Your task to perform on an android device: turn on location history Image 0: 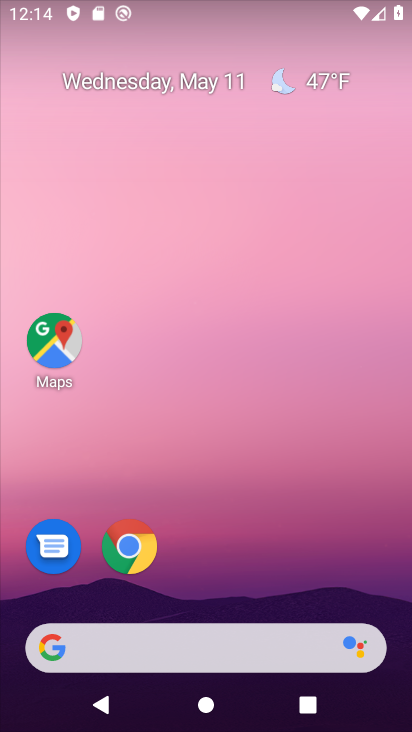
Step 0: drag from (230, 426) to (233, 147)
Your task to perform on an android device: turn on location history Image 1: 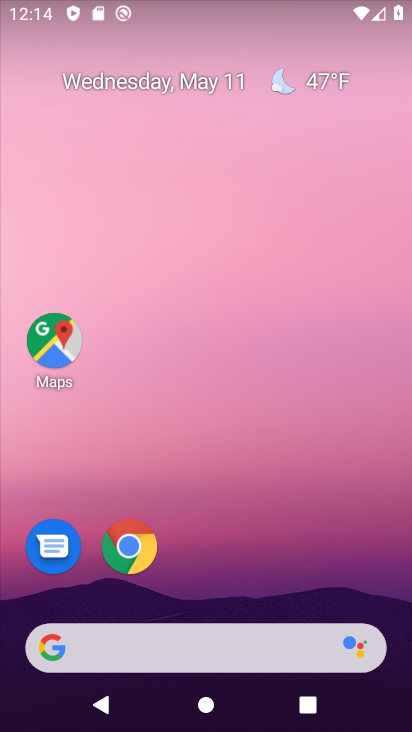
Step 1: drag from (191, 470) to (214, 147)
Your task to perform on an android device: turn on location history Image 2: 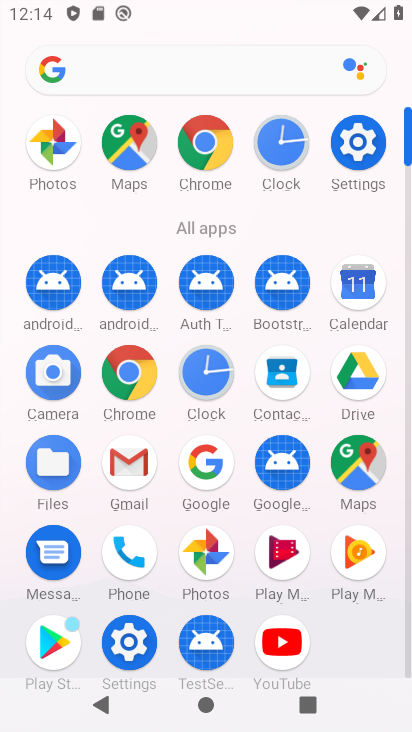
Step 2: click (380, 141)
Your task to perform on an android device: turn on location history Image 3: 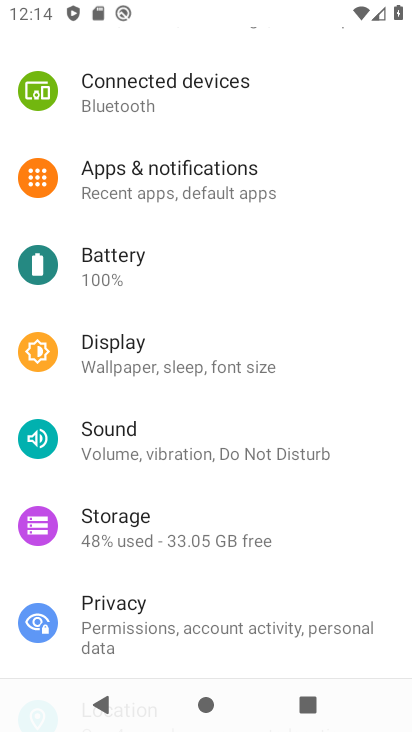
Step 3: drag from (191, 576) to (197, 269)
Your task to perform on an android device: turn on location history Image 4: 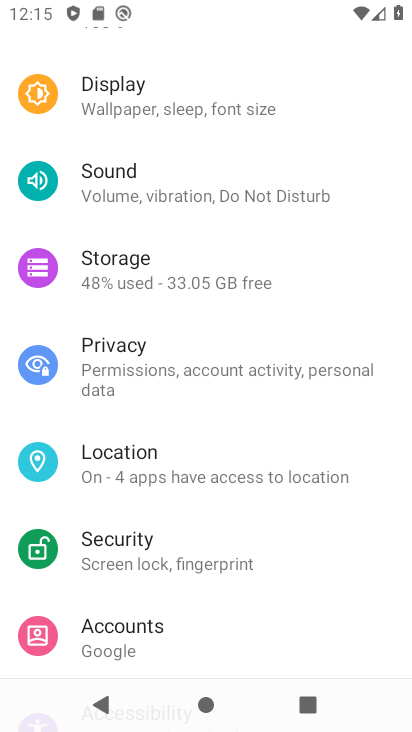
Step 4: click (168, 467)
Your task to perform on an android device: turn on location history Image 5: 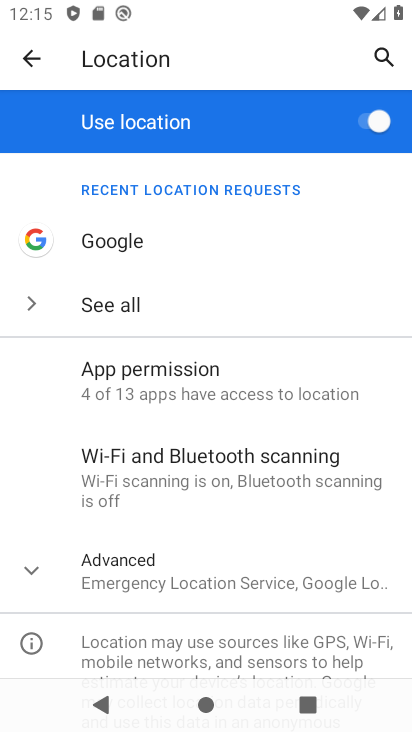
Step 5: click (154, 601)
Your task to perform on an android device: turn on location history Image 6: 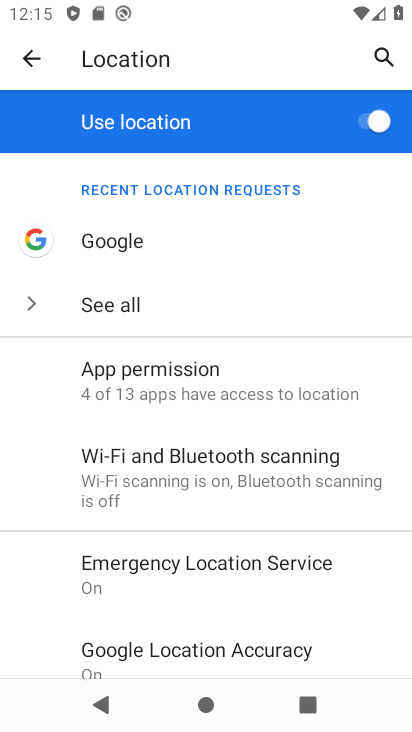
Step 6: drag from (184, 599) to (200, 380)
Your task to perform on an android device: turn on location history Image 7: 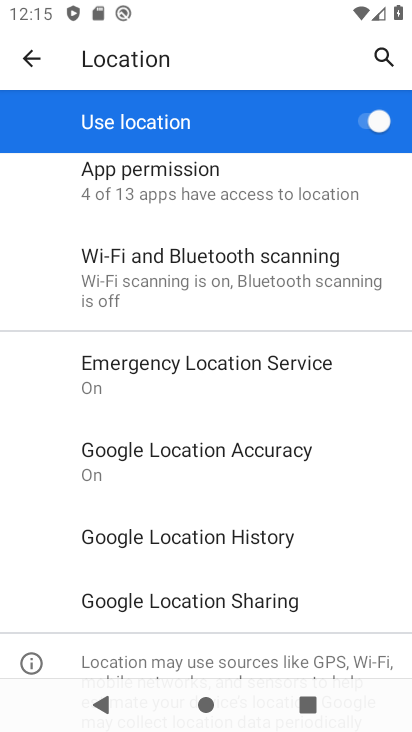
Step 7: click (167, 551)
Your task to perform on an android device: turn on location history Image 8: 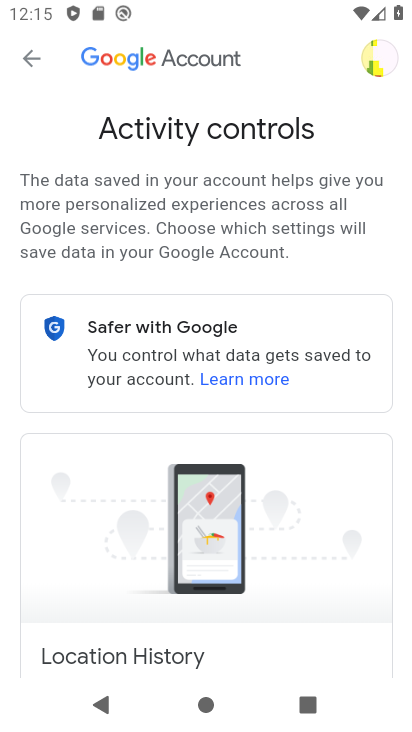
Step 8: task complete